Your task to perform on an android device: find photos in the google photos app Image 0: 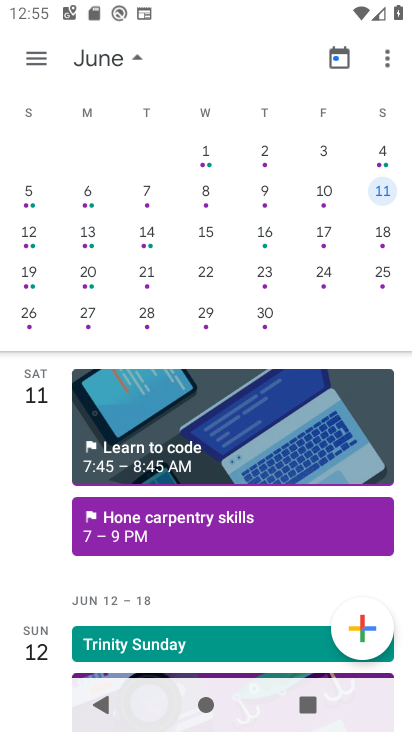
Step 0: press home button
Your task to perform on an android device: find photos in the google photos app Image 1: 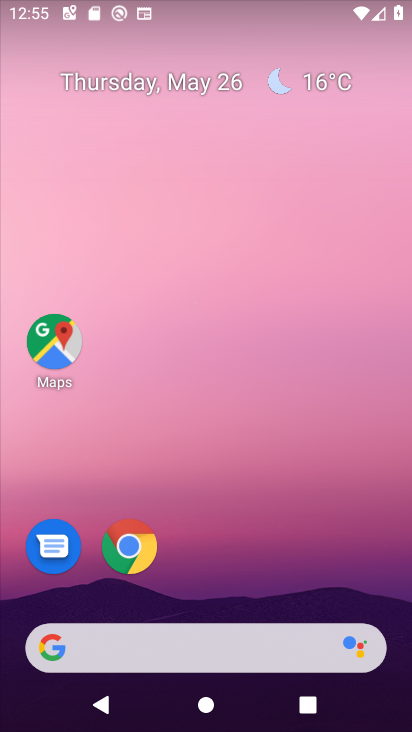
Step 1: drag from (172, 555) to (202, 255)
Your task to perform on an android device: find photos in the google photos app Image 2: 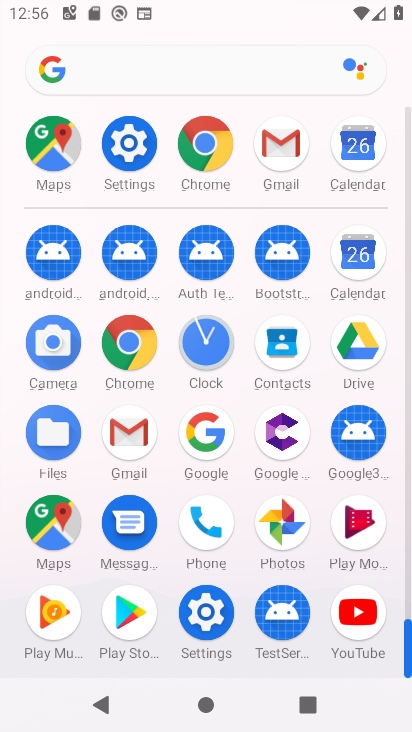
Step 2: click (279, 527)
Your task to perform on an android device: find photos in the google photos app Image 3: 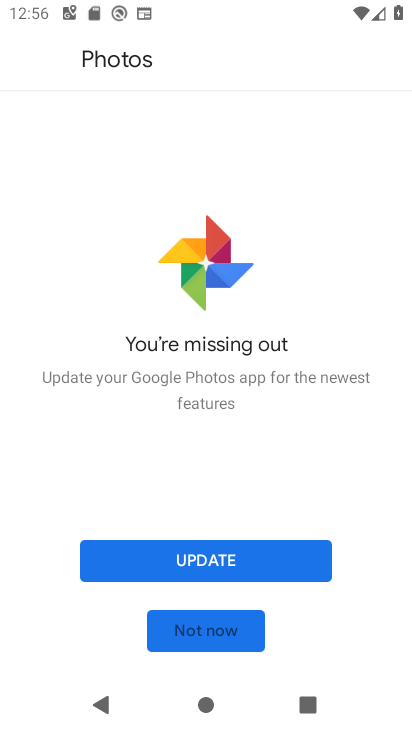
Step 3: click (186, 555)
Your task to perform on an android device: find photos in the google photos app Image 4: 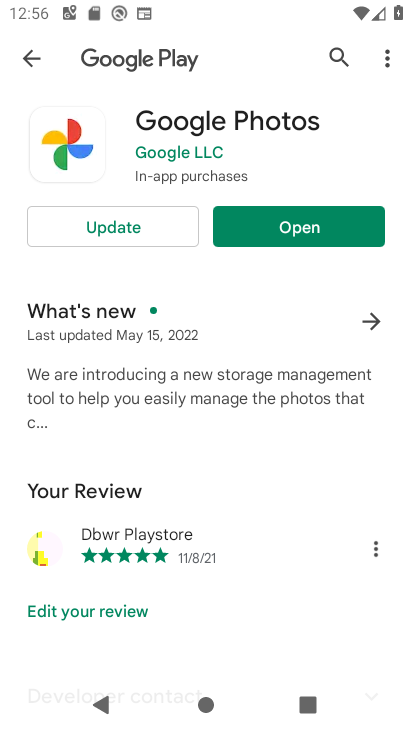
Step 4: click (153, 235)
Your task to perform on an android device: find photos in the google photos app Image 5: 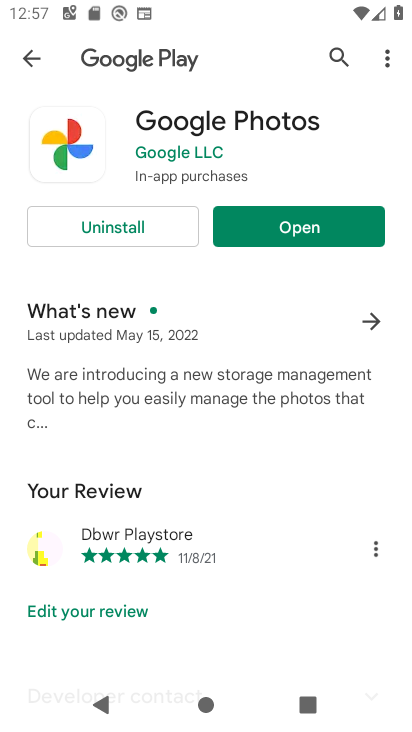
Step 5: click (284, 238)
Your task to perform on an android device: find photos in the google photos app Image 6: 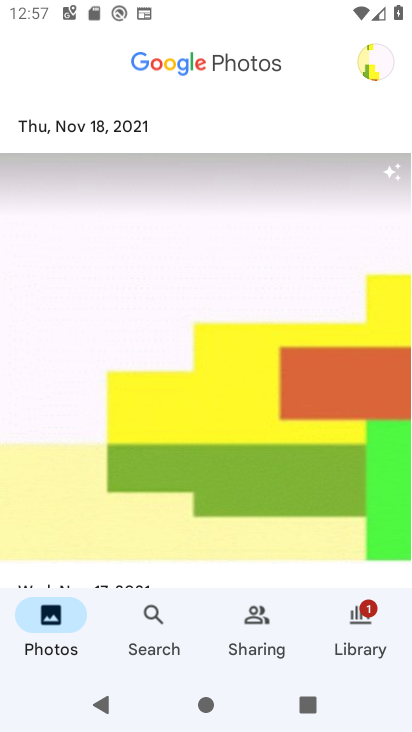
Step 6: task complete